Your task to perform on an android device: set default search engine in the chrome app Image 0: 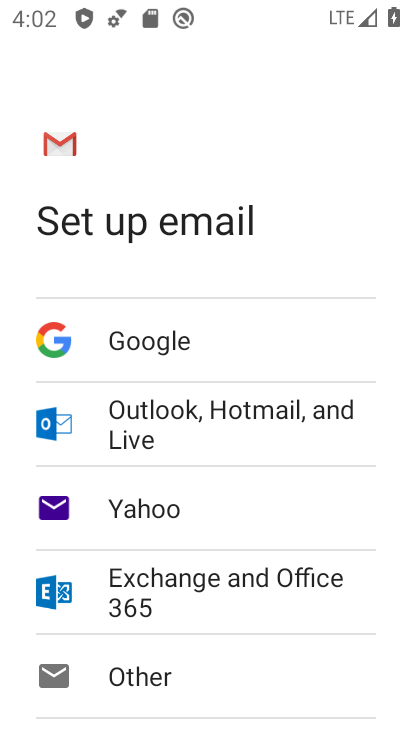
Step 0: press back button
Your task to perform on an android device: set default search engine in the chrome app Image 1: 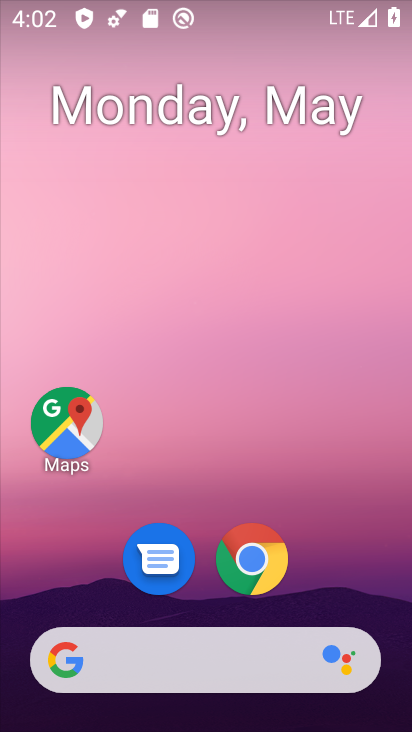
Step 1: click (244, 555)
Your task to perform on an android device: set default search engine in the chrome app Image 2: 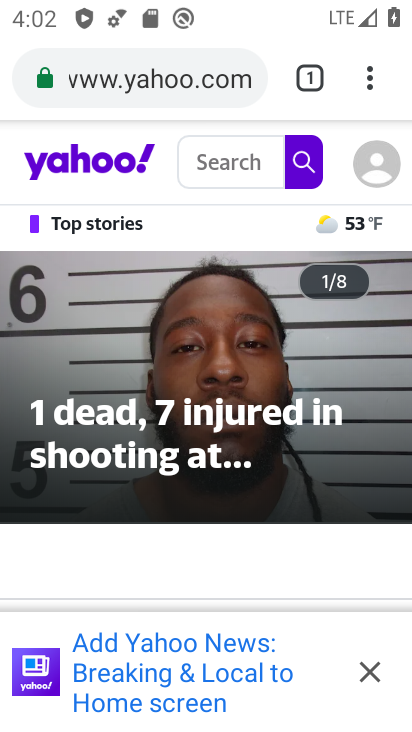
Step 2: drag from (363, 73) to (81, 603)
Your task to perform on an android device: set default search engine in the chrome app Image 3: 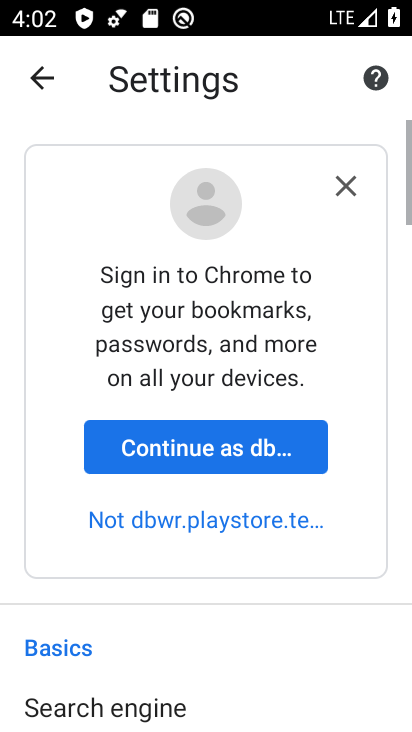
Step 3: drag from (245, 573) to (231, 233)
Your task to perform on an android device: set default search engine in the chrome app Image 4: 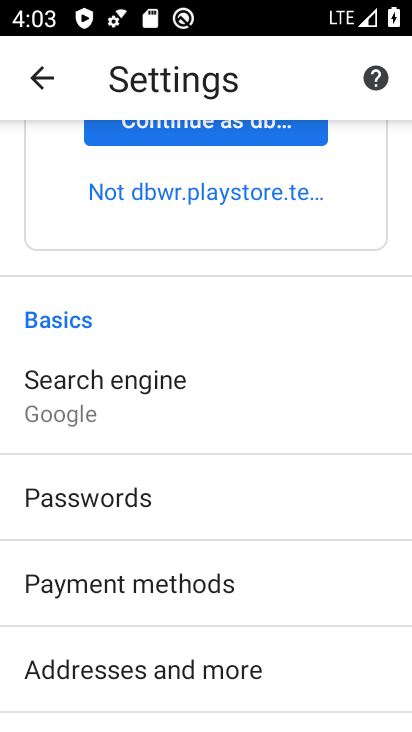
Step 4: click (280, 393)
Your task to perform on an android device: set default search engine in the chrome app Image 5: 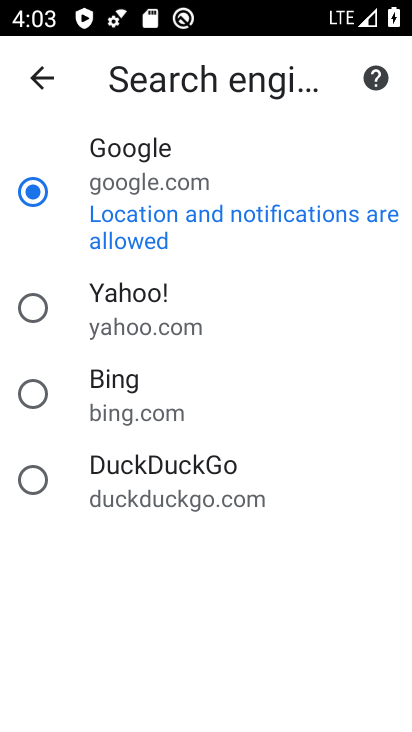
Step 5: click (139, 178)
Your task to perform on an android device: set default search engine in the chrome app Image 6: 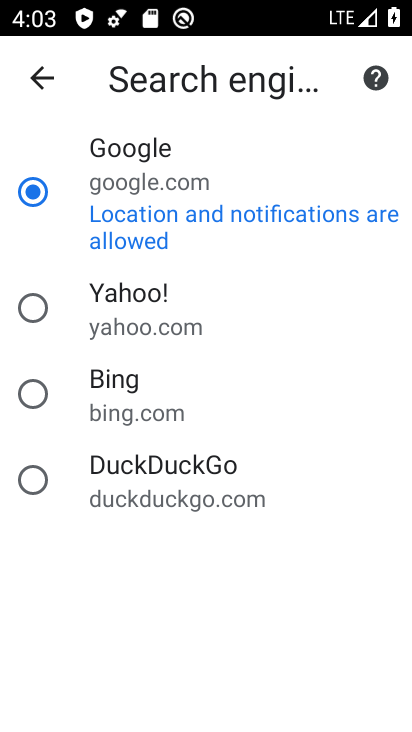
Step 6: click (46, 77)
Your task to perform on an android device: set default search engine in the chrome app Image 7: 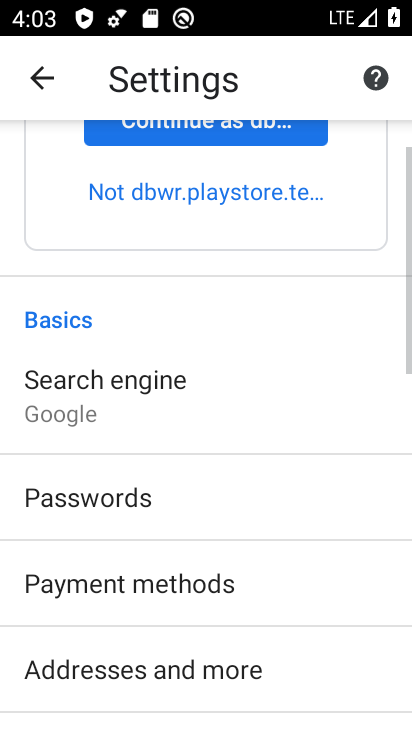
Step 7: task complete